Your task to perform on an android device: Open calendar and show me the third week of next month Image 0: 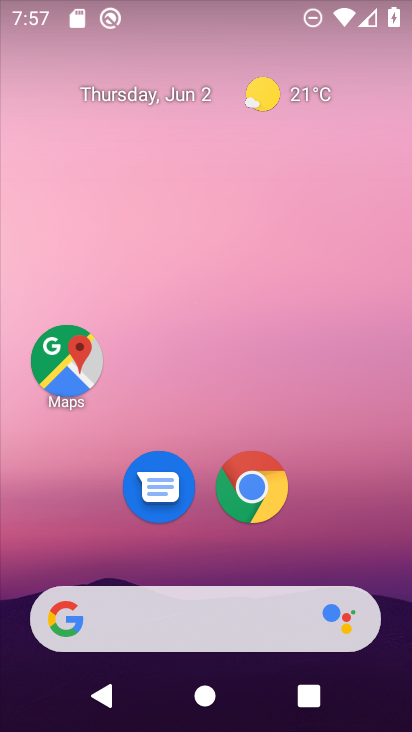
Step 0: drag from (171, 540) to (193, 0)
Your task to perform on an android device: Open calendar and show me the third week of next month Image 1: 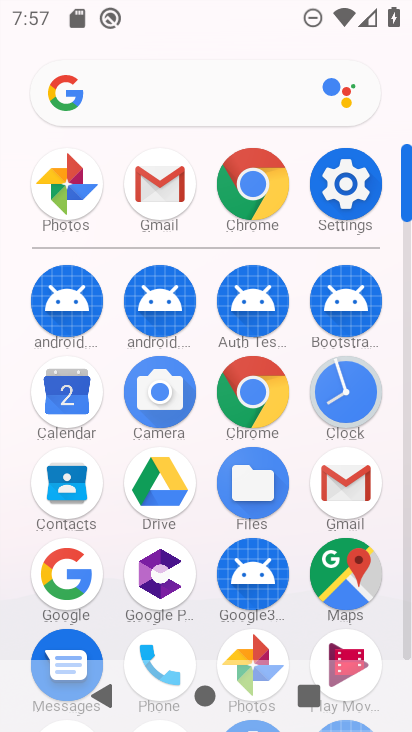
Step 1: click (57, 405)
Your task to perform on an android device: Open calendar and show me the third week of next month Image 2: 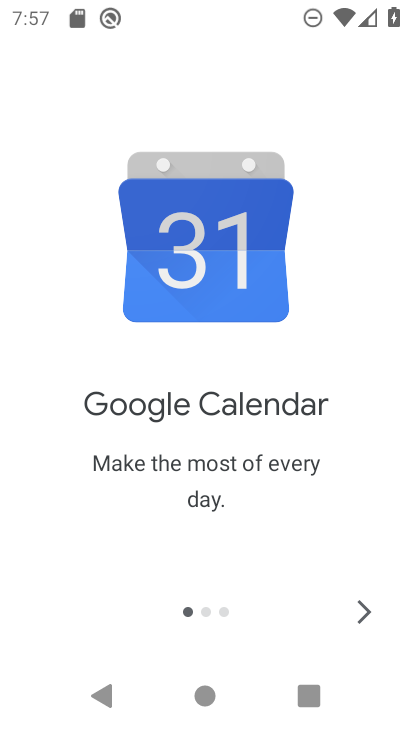
Step 2: click (371, 607)
Your task to perform on an android device: Open calendar and show me the third week of next month Image 3: 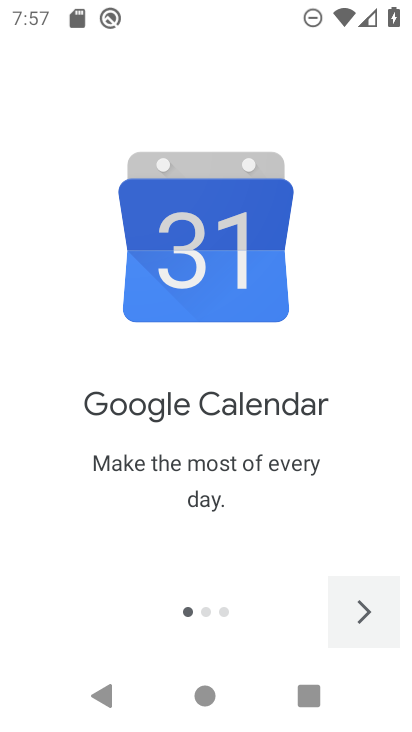
Step 3: click (371, 607)
Your task to perform on an android device: Open calendar and show me the third week of next month Image 4: 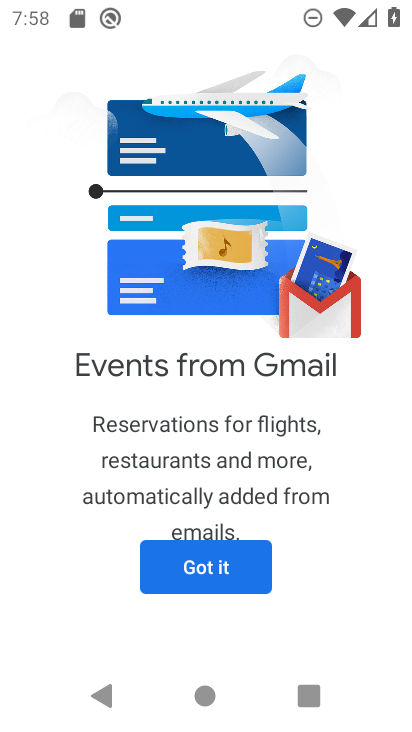
Step 4: click (247, 579)
Your task to perform on an android device: Open calendar and show me the third week of next month Image 5: 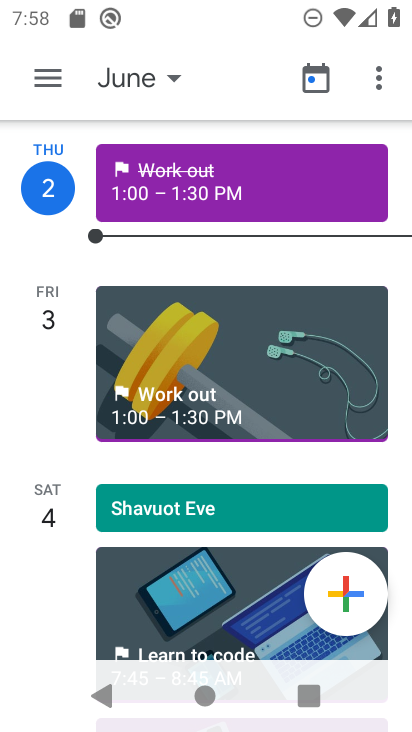
Step 5: click (172, 78)
Your task to perform on an android device: Open calendar and show me the third week of next month Image 6: 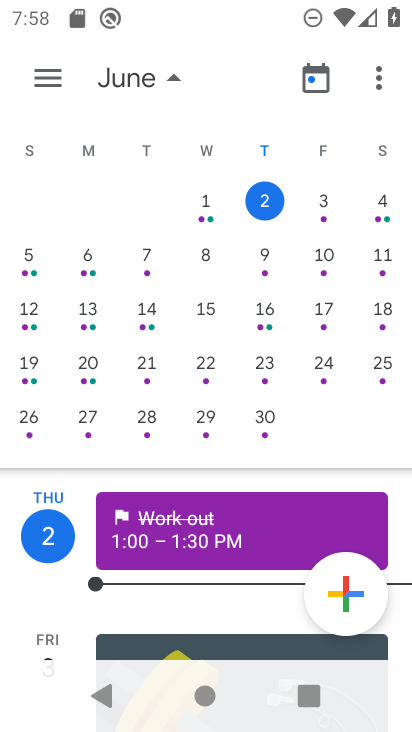
Step 6: drag from (392, 294) to (38, 297)
Your task to perform on an android device: Open calendar and show me the third week of next month Image 7: 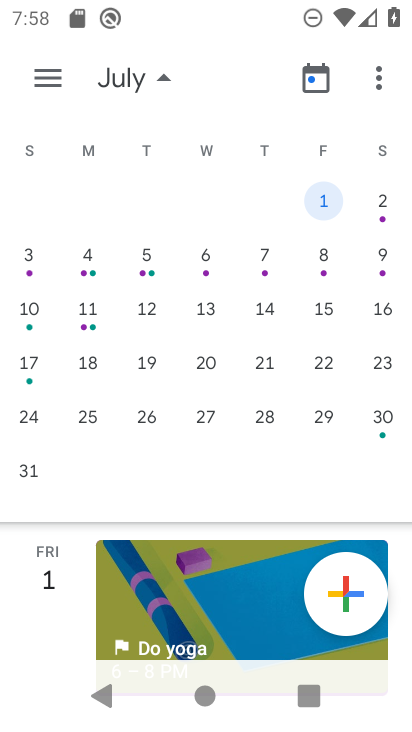
Step 7: click (25, 312)
Your task to perform on an android device: Open calendar and show me the third week of next month Image 8: 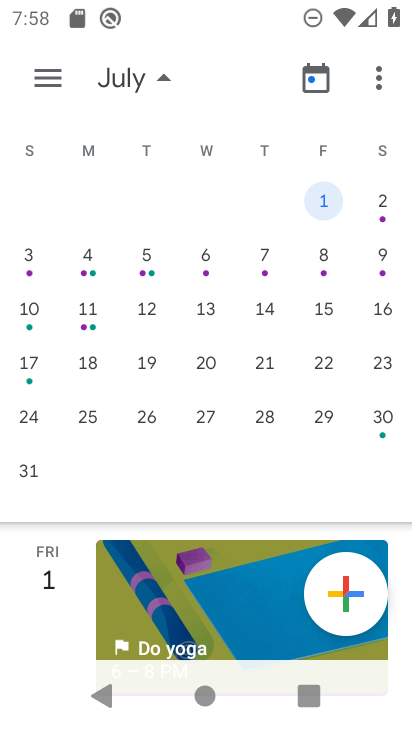
Step 8: click (32, 319)
Your task to perform on an android device: Open calendar and show me the third week of next month Image 9: 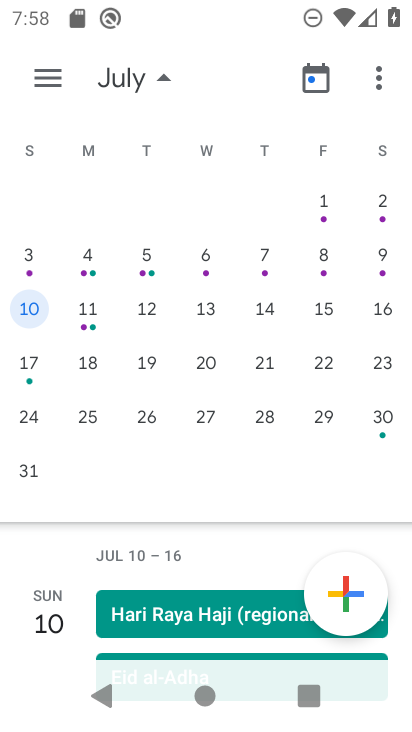
Step 9: click (83, 316)
Your task to perform on an android device: Open calendar and show me the third week of next month Image 10: 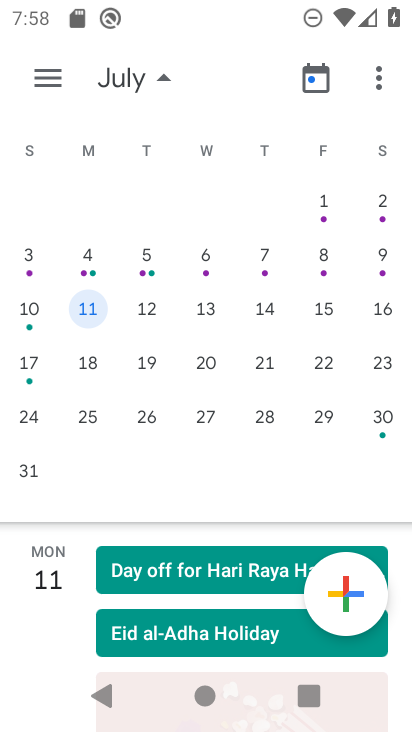
Step 10: click (143, 313)
Your task to perform on an android device: Open calendar and show me the third week of next month Image 11: 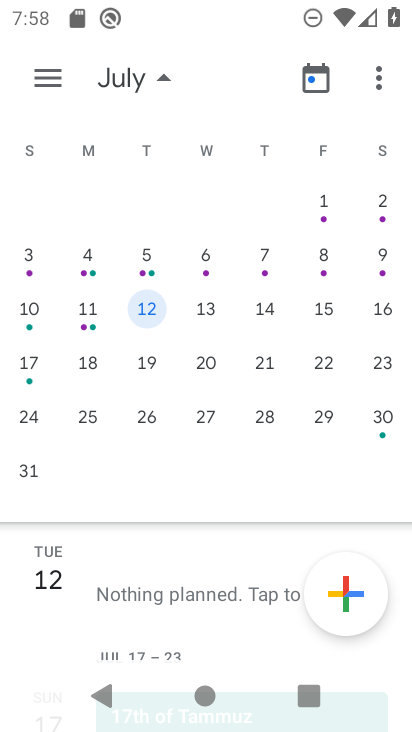
Step 11: click (206, 312)
Your task to perform on an android device: Open calendar and show me the third week of next month Image 12: 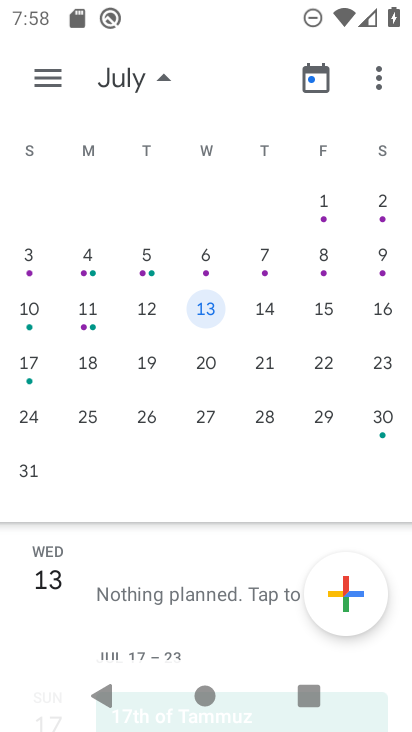
Step 12: click (264, 306)
Your task to perform on an android device: Open calendar and show me the third week of next month Image 13: 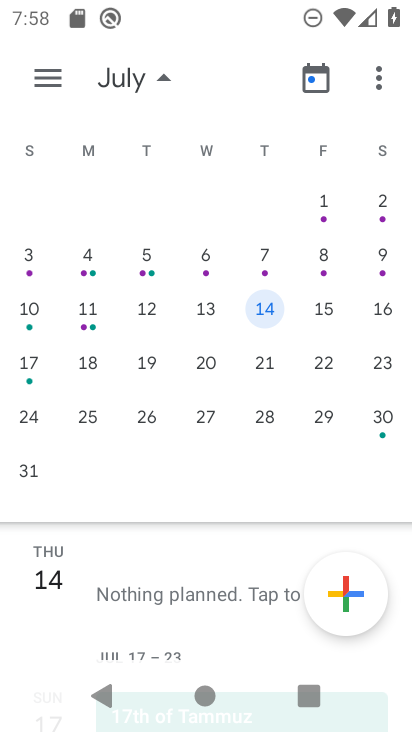
Step 13: click (327, 312)
Your task to perform on an android device: Open calendar and show me the third week of next month Image 14: 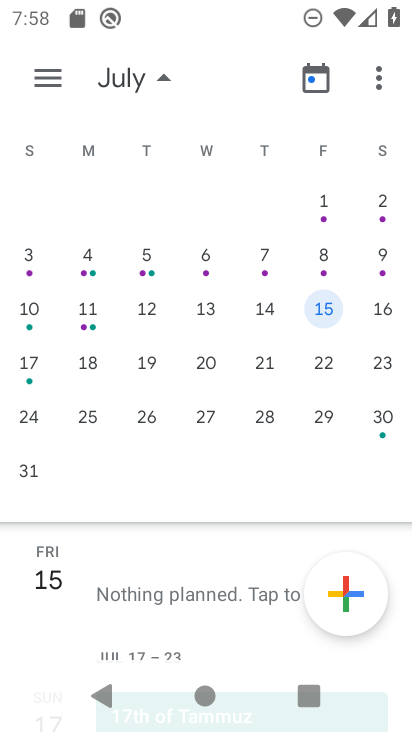
Step 14: click (380, 310)
Your task to perform on an android device: Open calendar and show me the third week of next month Image 15: 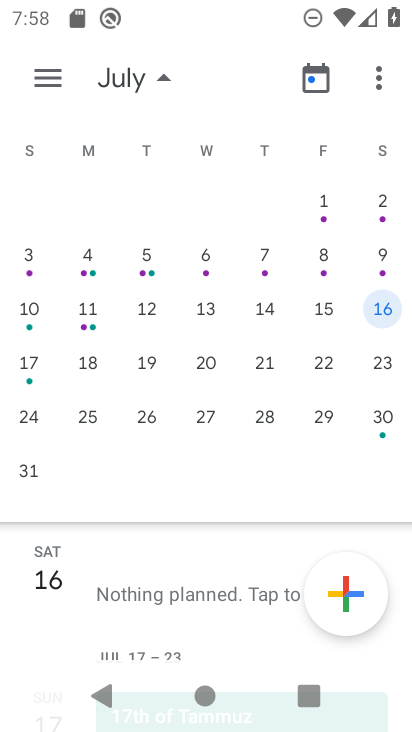
Step 15: task complete